Your task to perform on an android device: Open sound settings Image 0: 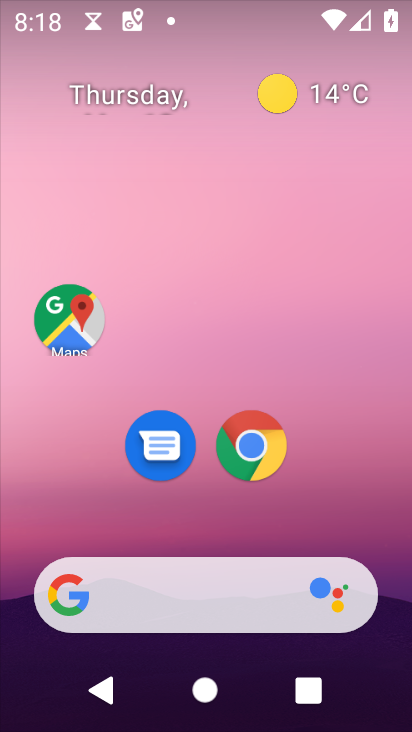
Step 0: drag from (214, 724) to (226, 196)
Your task to perform on an android device: Open sound settings Image 1: 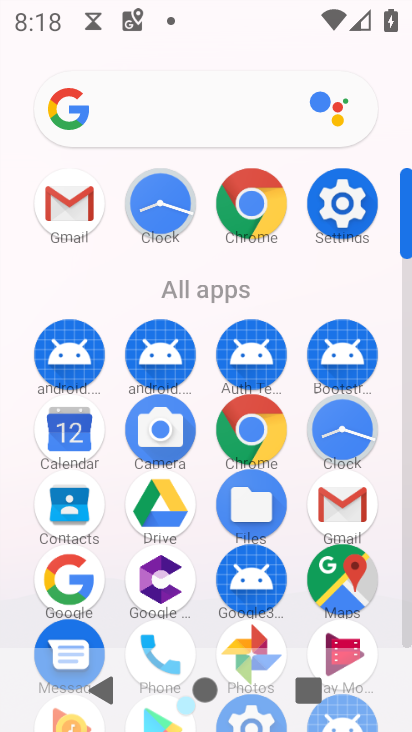
Step 1: click (352, 198)
Your task to perform on an android device: Open sound settings Image 2: 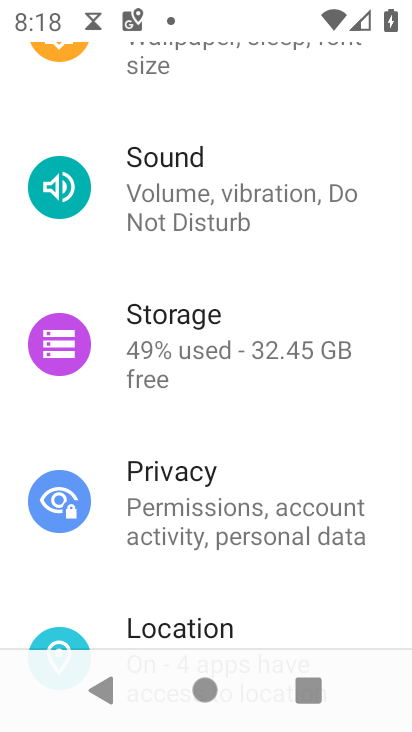
Step 2: click (168, 193)
Your task to perform on an android device: Open sound settings Image 3: 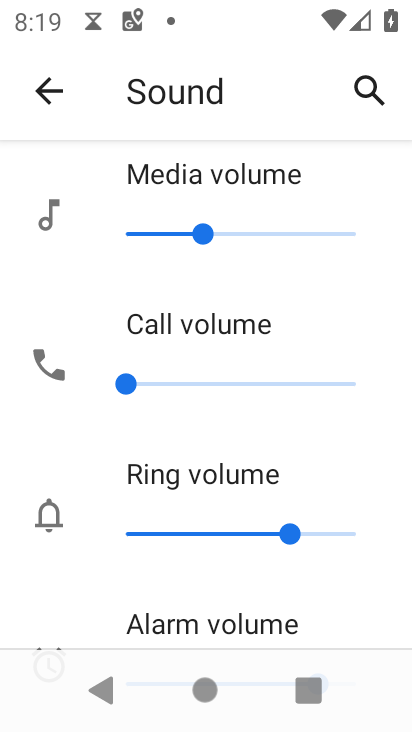
Step 3: task complete